Your task to perform on an android device: turn off translation in the chrome app Image 0: 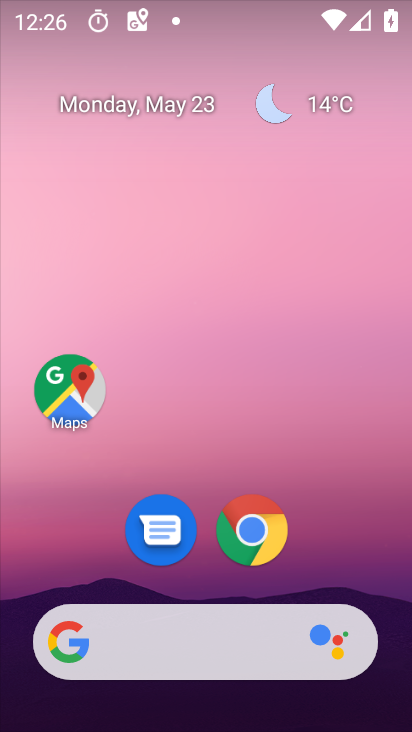
Step 0: click (252, 524)
Your task to perform on an android device: turn off translation in the chrome app Image 1: 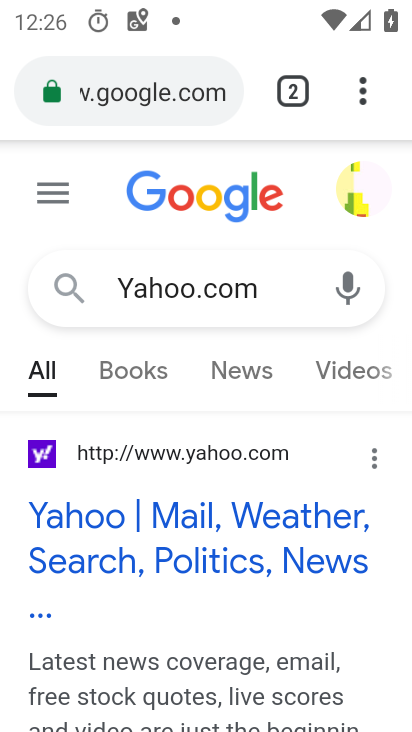
Step 1: click (366, 87)
Your task to perform on an android device: turn off translation in the chrome app Image 2: 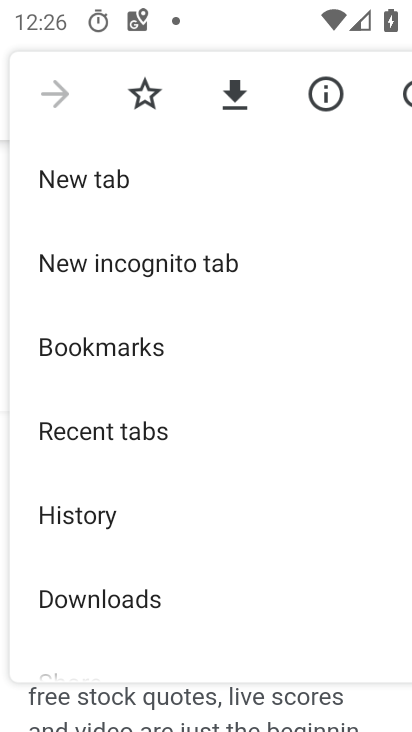
Step 2: drag from (228, 657) to (270, 322)
Your task to perform on an android device: turn off translation in the chrome app Image 3: 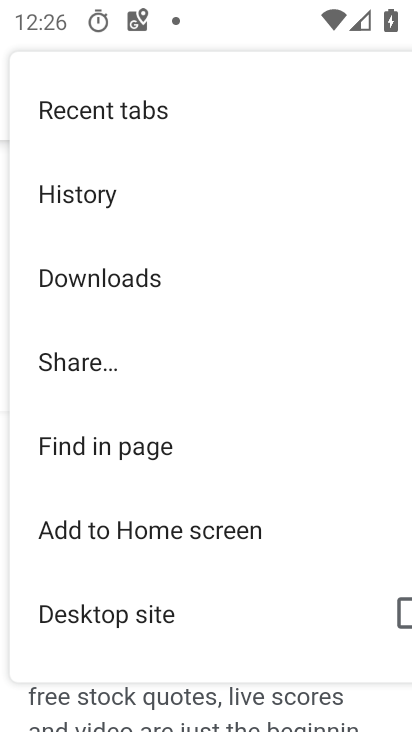
Step 3: drag from (257, 565) to (257, 347)
Your task to perform on an android device: turn off translation in the chrome app Image 4: 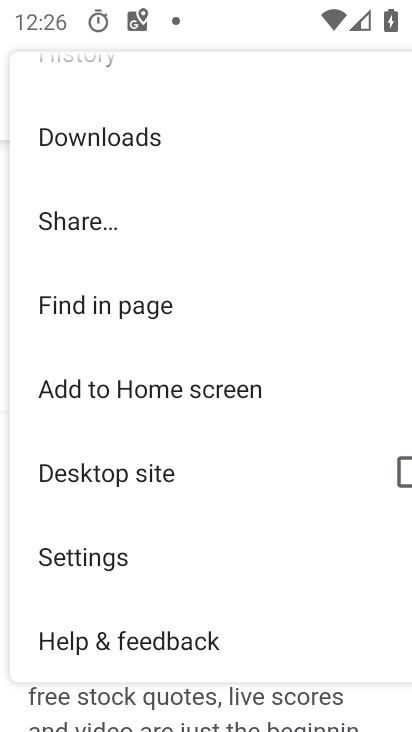
Step 4: click (67, 556)
Your task to perform on an android device: turn off translation in the chrome app Image 5: 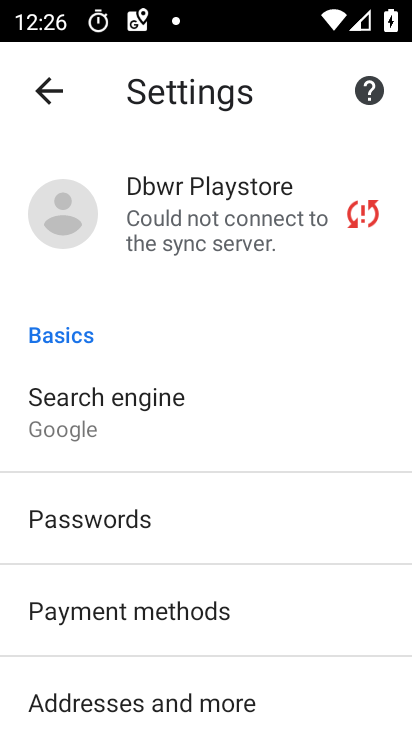
Step 5: drag from (297, 693) to (270, 446)
Your task to perform on an android device: turn off translation in the chrome app Image 6: 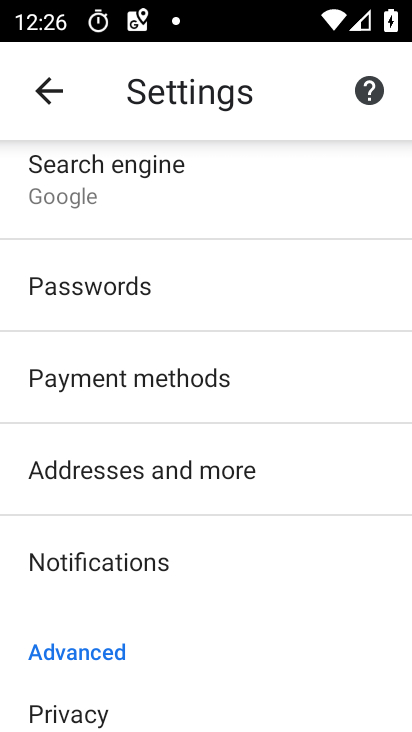
Step 6: drag from (303, 700) to (279, 305)
Your task to perform on an android device: turn off translation in the chrome app Image 7: 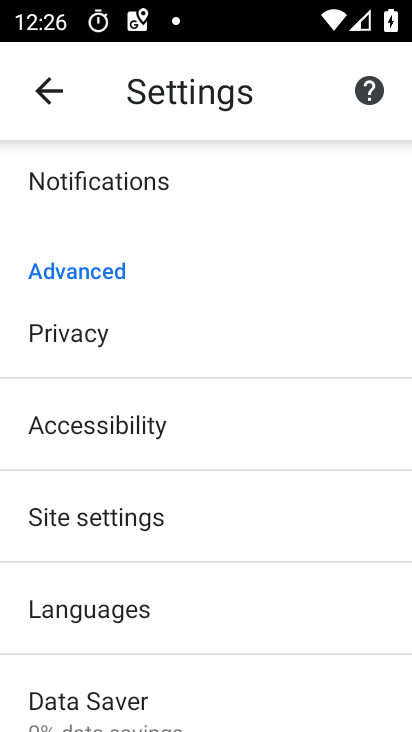
Step 7: click (54, 611)
Your task to perform on an android device: turn off translation in the chrome app Image 8: 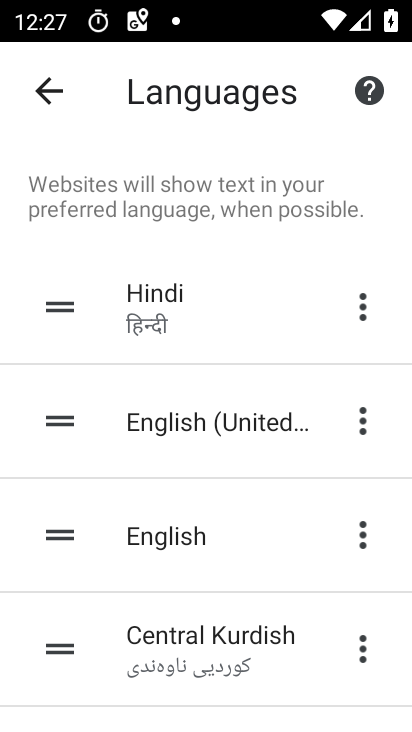
Step 8: drag from (295, 703) to (289, 334)
Your task to perform on an android device: turn off translation in the chrome app Image 9: 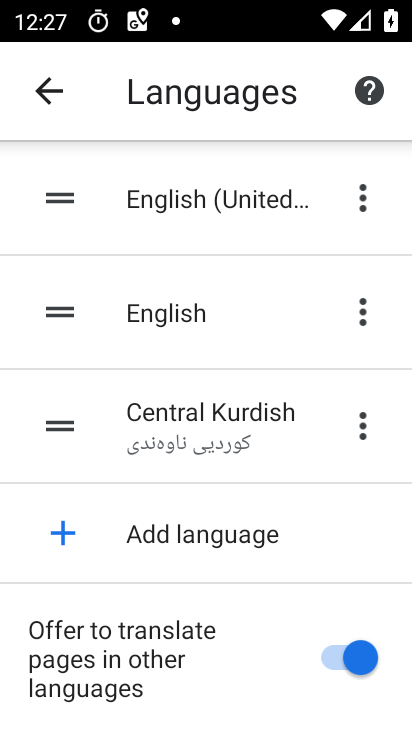
Step 9: click (329, 660)
Your task to perform on an android device: turn off translation in the chrome app Image 10: 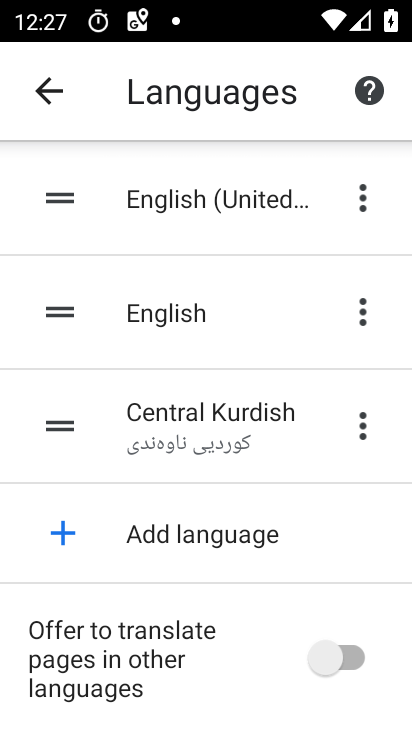
Step 10: task complete